Your task to perform on an android device: When is my next appointment? Image 0: 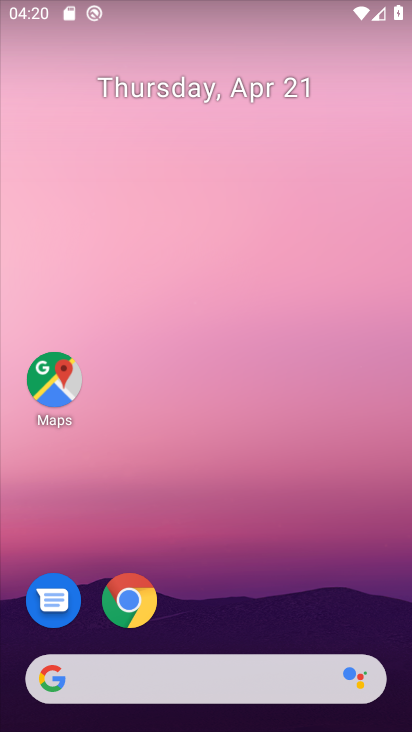
Step 0: drag from (401, 405) to (378, 595)
Your task to perform on an android device: When is my next appointment? Image 1: 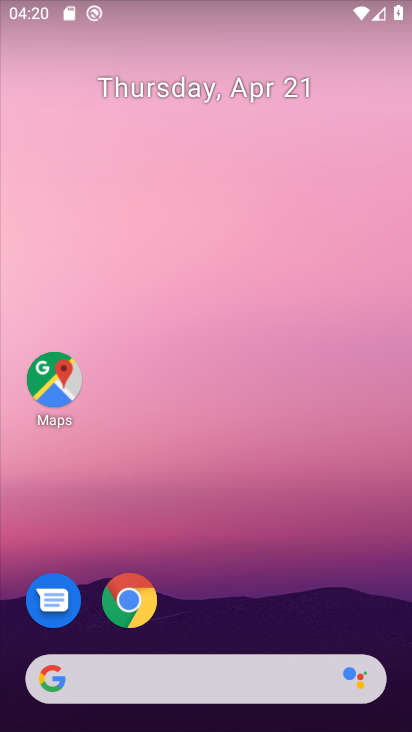
Step 1: drag from (367, 334) to (406, 14)
Your task to perform on an android device: When is my next appointment? Image 2: 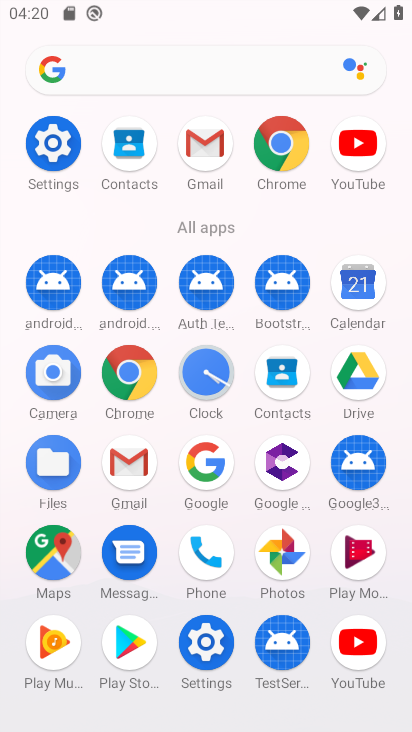
Step 2: click (361, 287)
Your task to perform on an android device: When is my next appointment? Image 3: 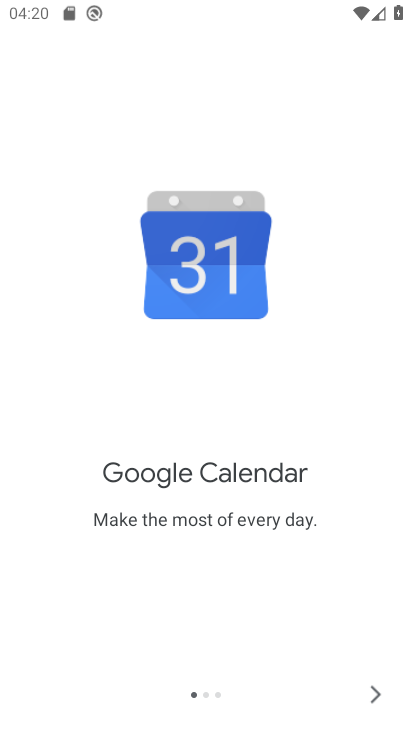
Step 3: click (382, 696)
Your task to perform on an android device: When is my next appointment? Image 4: 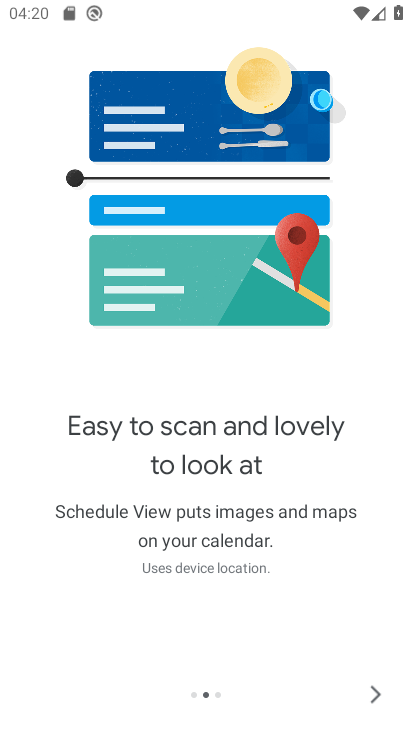
Step 4: click (374, 696)
Your task to perform on an android device: When is my next appointment? Image 5: 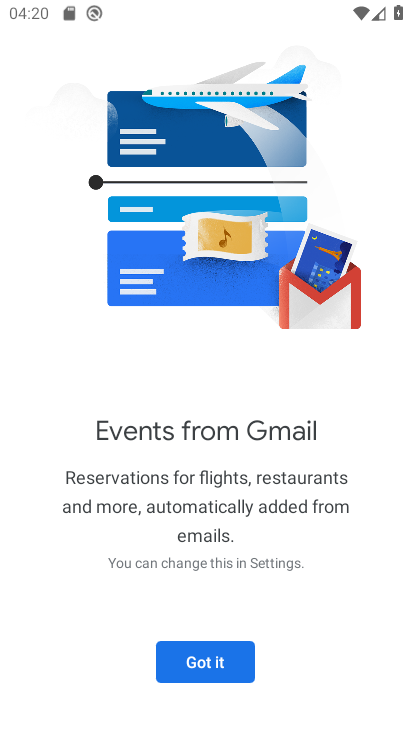
Step 5: click (225, 657)
Your task to perform on an android device: When is my next appointment? Image 6: 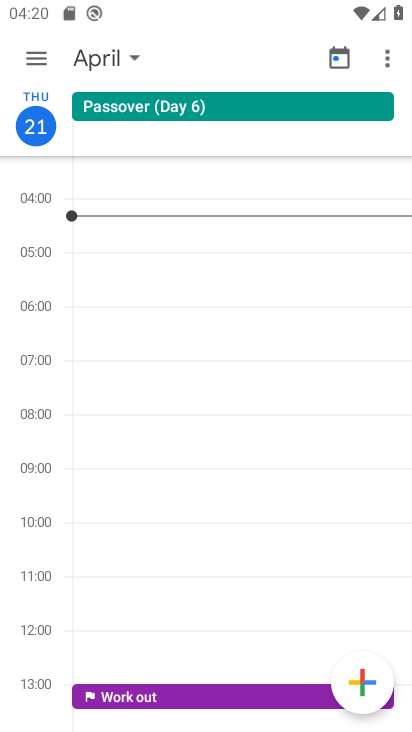
Step 6: click (134, 53)
Your task to perform on an android device: When is my next appointment? Image 7: 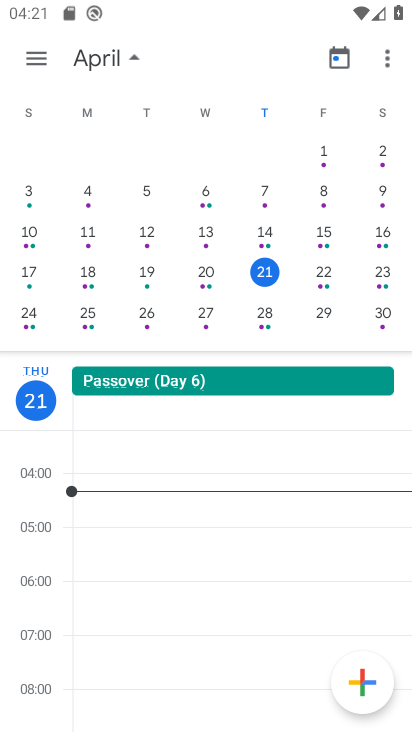
Step 7: click (42, 66)
Your task to perform on an android device: When is my next appointment? Image 8: 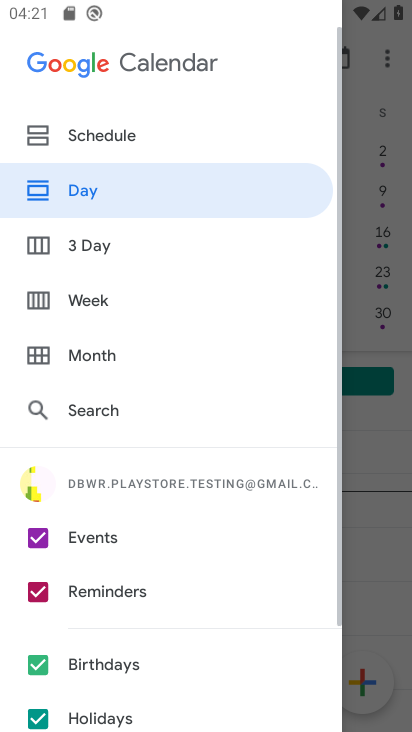
Step 8: click (99, 134)
Your task to perform on an android device: When is my next appointment? Image 9: 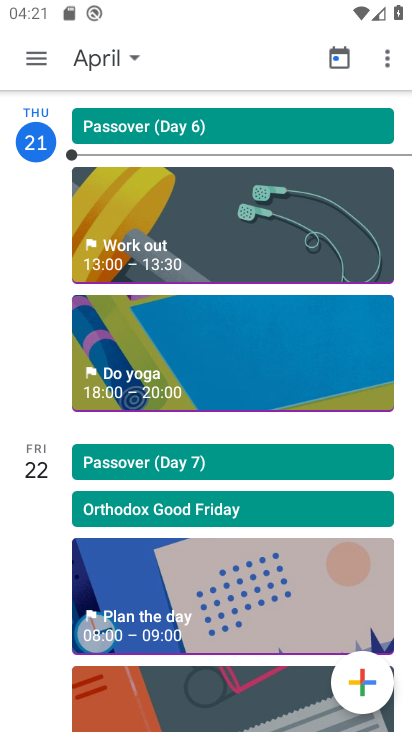
Step 9: click (126, 56)
Your task to perform on an android device: When is my next appointment? Image 10: 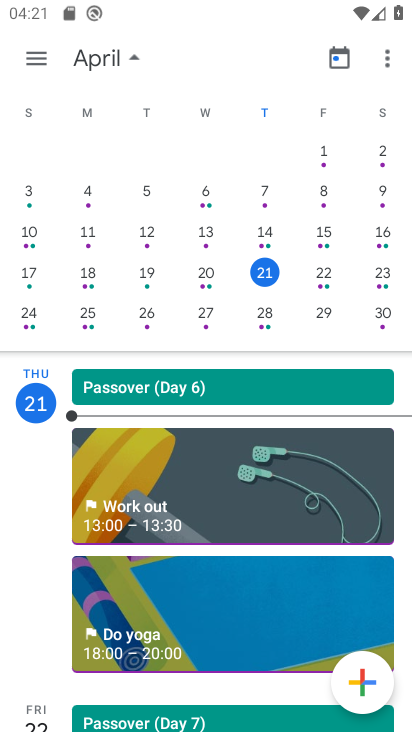
Step 10: drag from (211, 487) to (211, 419)
Your task to perform on an android device: When is my next appointment? Image 11: 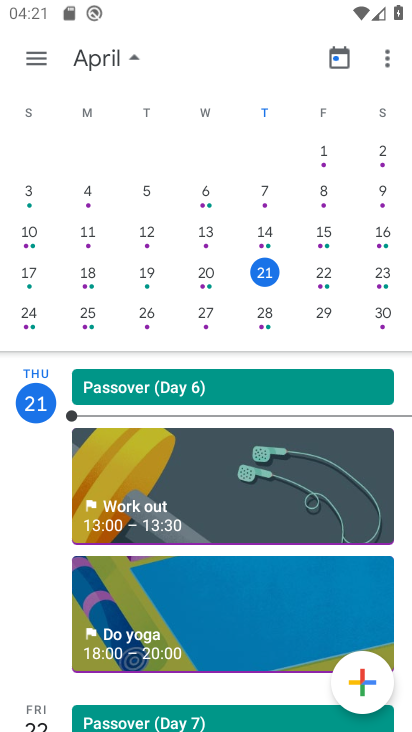
Step 11: click (155, 652)
Your task to perform on an android device: When is my next appointment? Image 12: 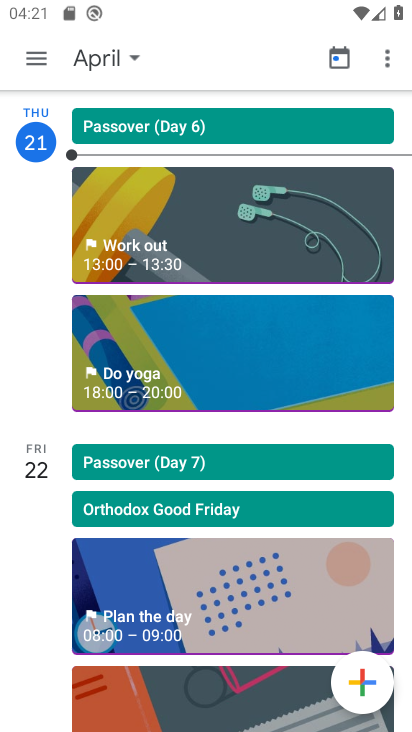
Step 12: click (163, 385)
Your task to perform on an android device: When is my next appointment? Image 13: 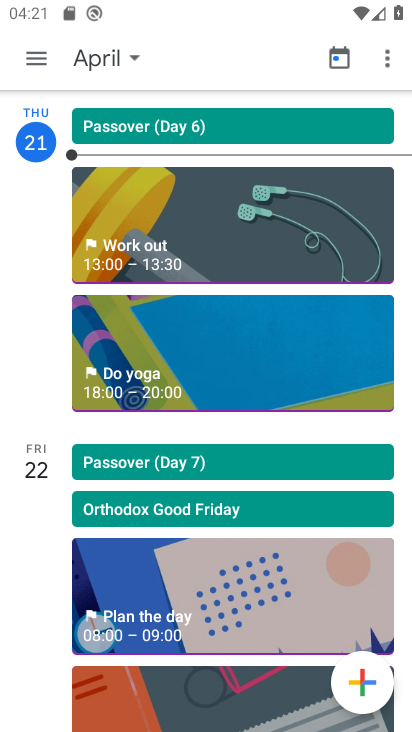
Step 13: click (169, 378)
Your task to perform on an android device: When is my next appointment? Image 14: 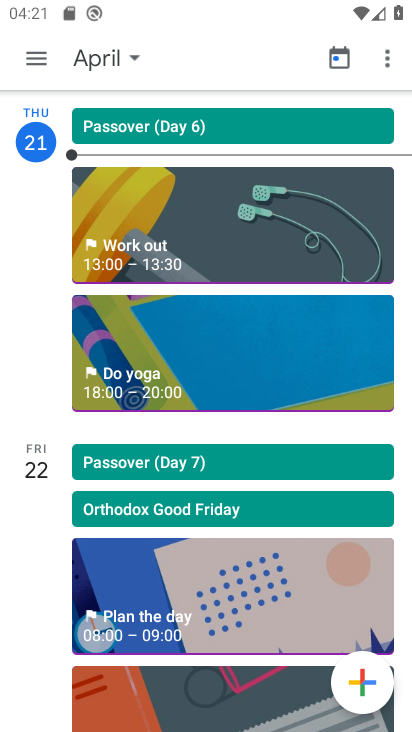
Step 14: click (213, 248)
Your task to perform on an android device: When is my next appointment? Image 15: 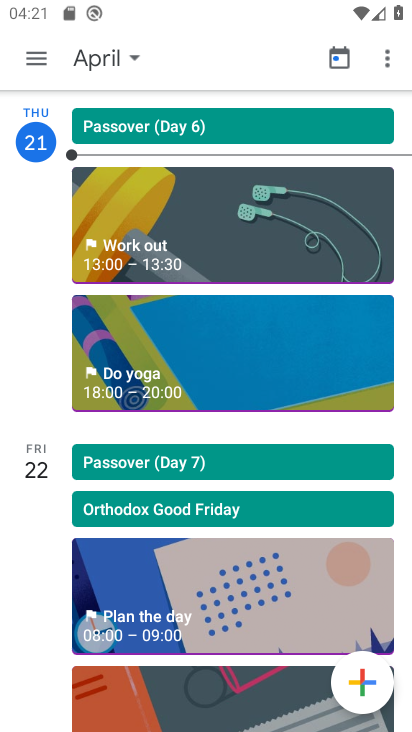
Step 15: drag from (193, 423) to (198, 303)
Your task to perform on an android device: When is my next appointment? Image 16: 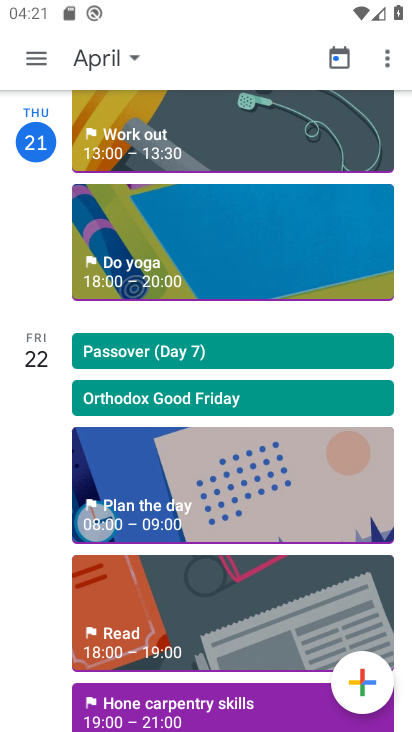
Step 16: drag from (152, 482) to (174, 156)
Your task to perform on an android device: When is my next appointment? Image 17: 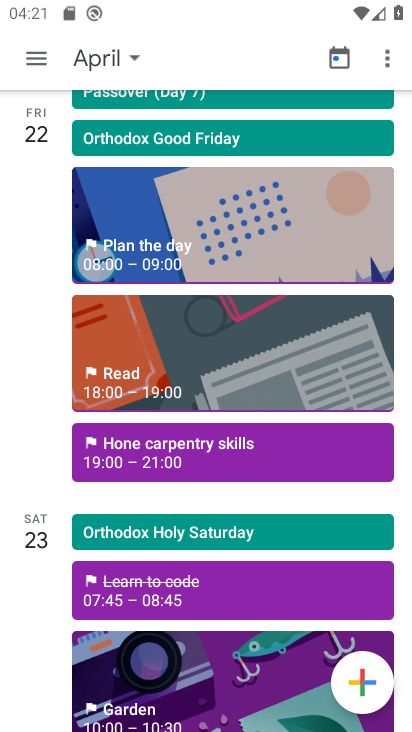
Step 17: click (176, 461)
Your task to perform on an android device: When is my next appointment? Image 18: 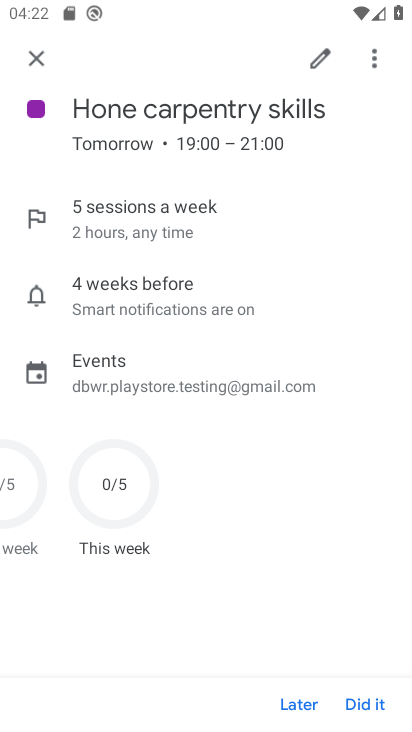
Step 18: task complete